Your task to perform on an android device: change keyboard looks Image 0: 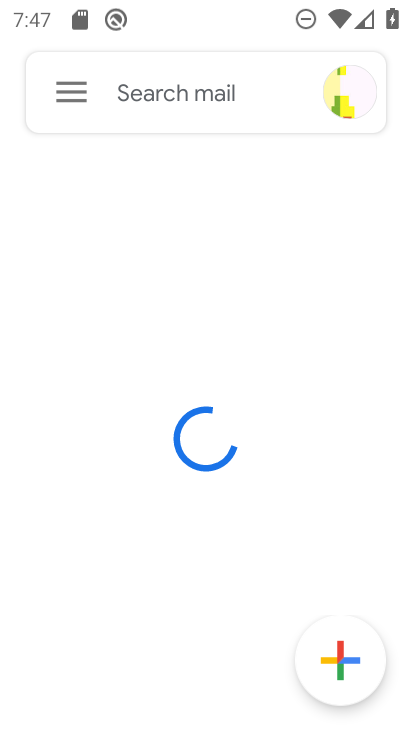
Step 0: press home button
Your task to perform on an android device: change keyboard looks Image 1: 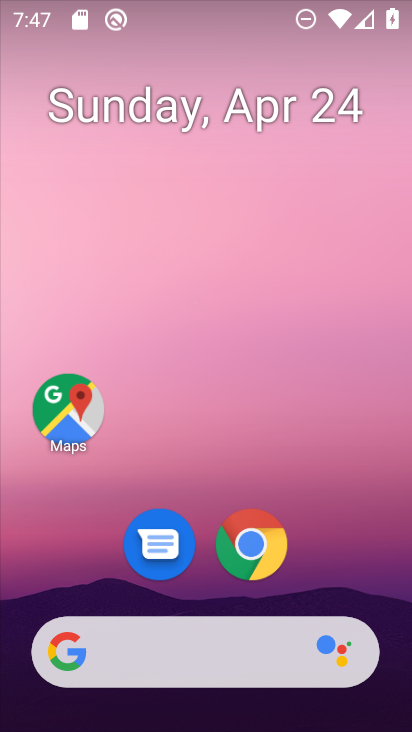
Step 1: drag from (156, 660) to (259, 168)
Your task to perform on an android device: change keyboard looks Image 2: 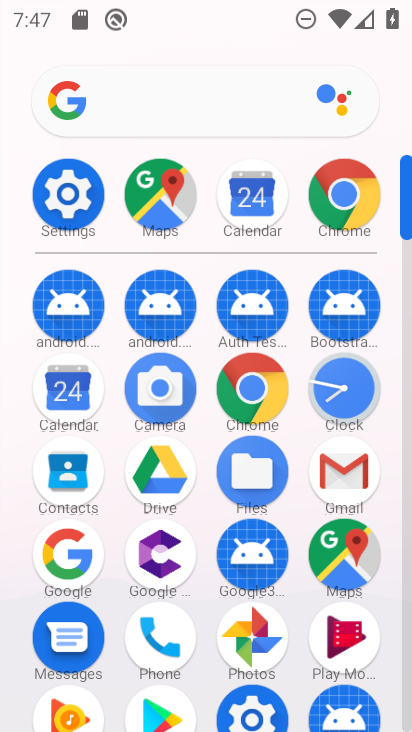
Step 2: click (72, 212)
Your task to perform on an android device: change keyboard looks Image 3: 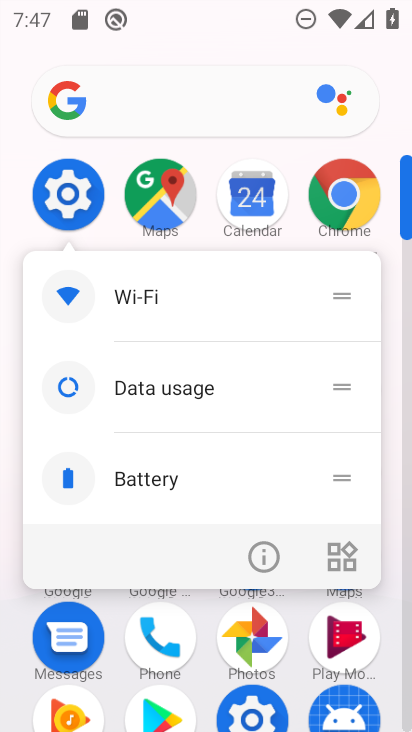
Step 3: click (77, 212)
Your task to perform on an android device: change keyboard looks Image 4: 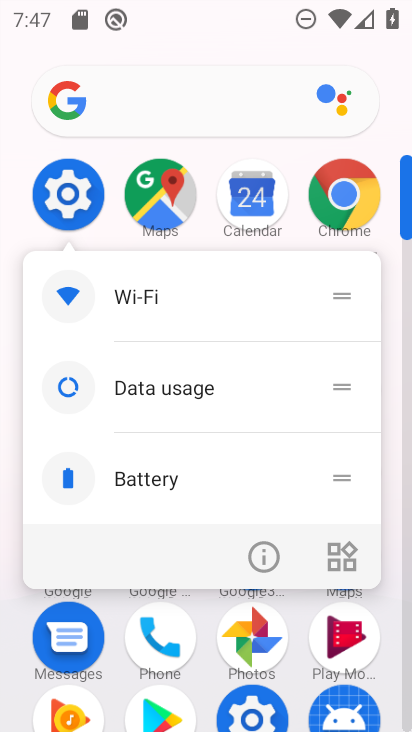
Step 4: click (75, 193)
Your task to perform on an android device: change keyboard looks Image 5: 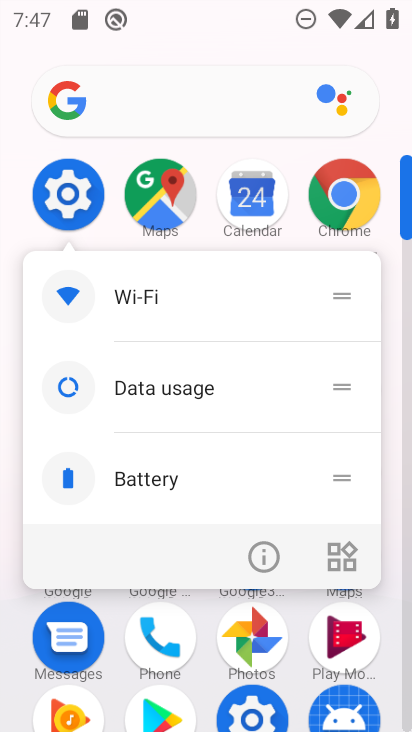
Step 5: click (71, 196)
Your task to perform on an android device: change keyboard looks Image 6: 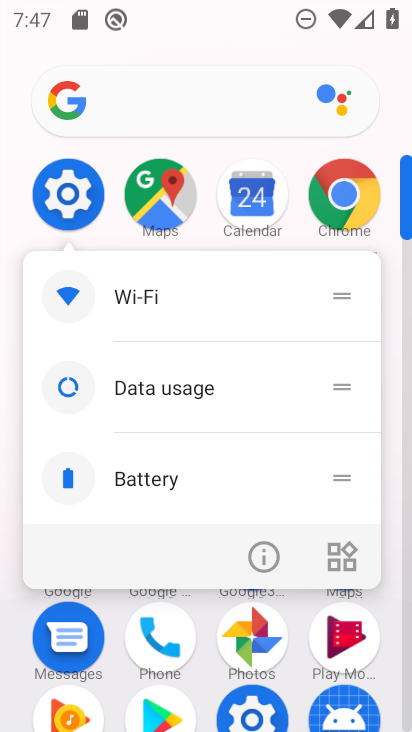
Step 6: click (70, 199)
Your task to perform on an android device: change keyboard looks Image 7: 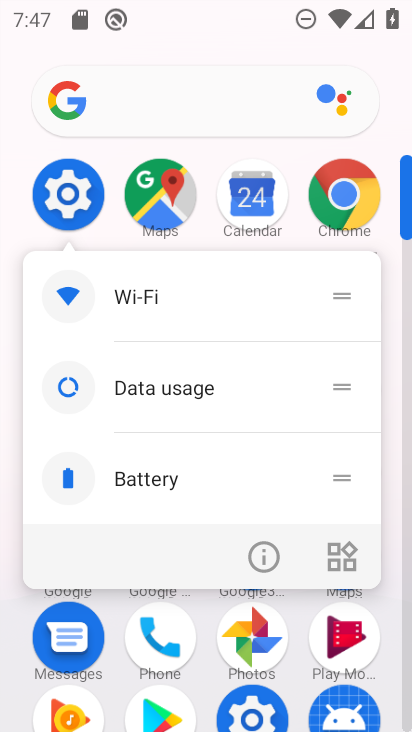
Step 7: click (62, 203)
Your task to perform on an android device: change keyboard looks Image 8: 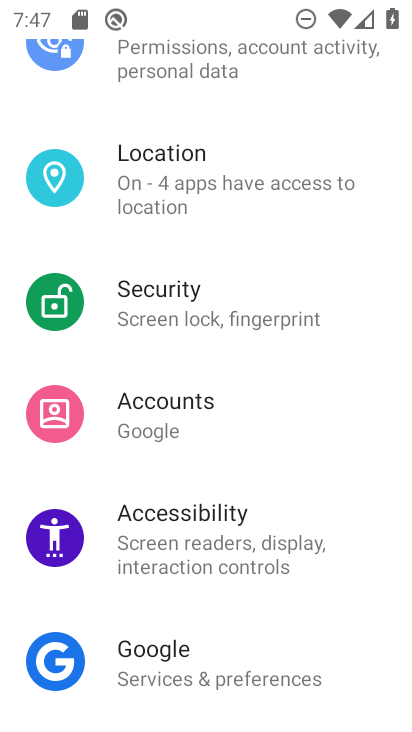
Step 8: drag from (177, 598) to (333, 183)
Your task to perform on an android device: change keyboard looks Image 9: 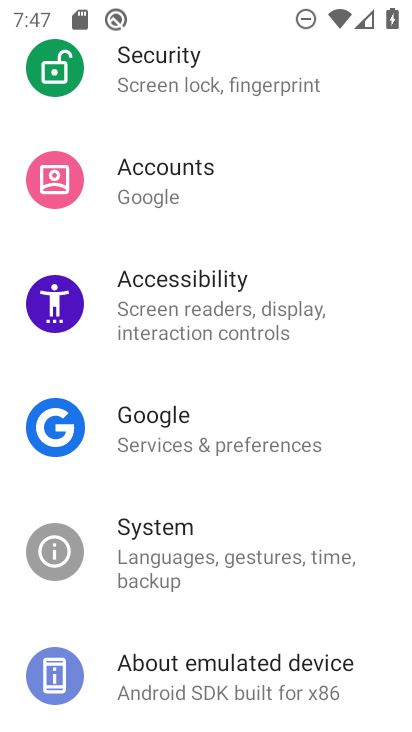
Step 9: click (169, 533)
Your task to perform on an android device: change keyboard looks Image 10: 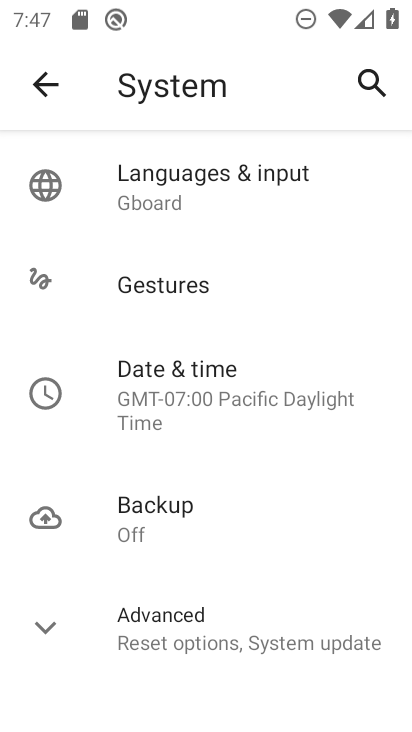
Step 10: click (207, 184)
Your task to perform on an android device: change keyboard looks Image 11: 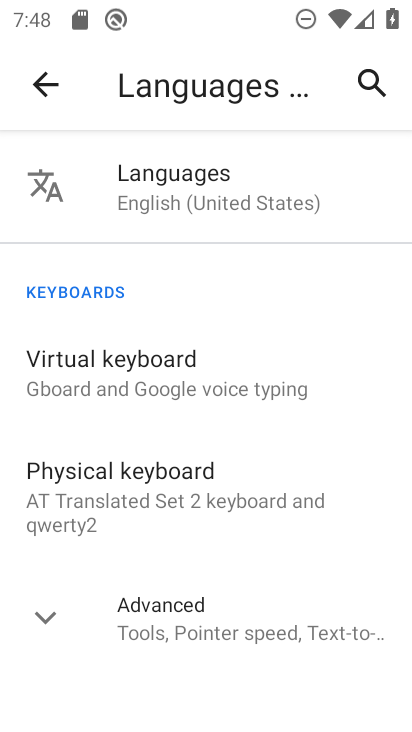
Step 11: click (130, 366)
Your task to perform on an android device: change keyboard looks Image 12: 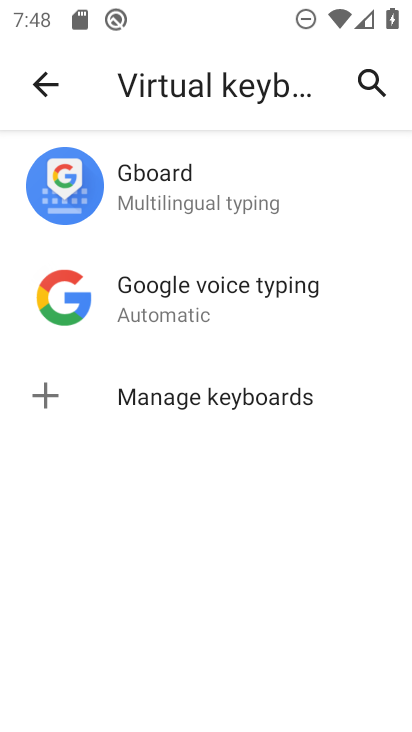
Step 12: click (175, 192)
Your task to perform on an android device: change keyboard looks Image 13: 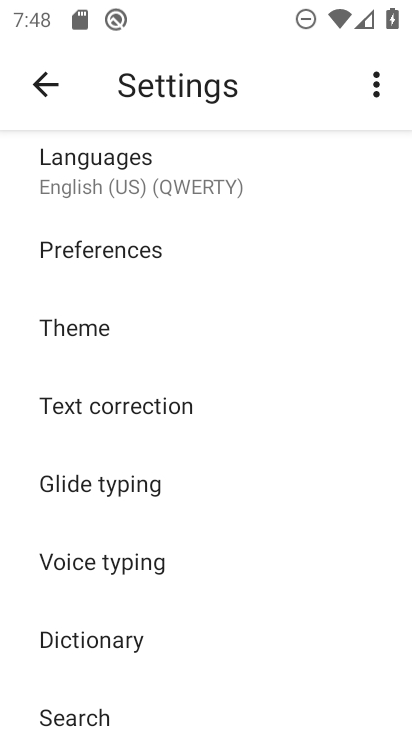
Step 13: click (88, 331)
Your task to perform on an android device: change keyboard looks Image 14: 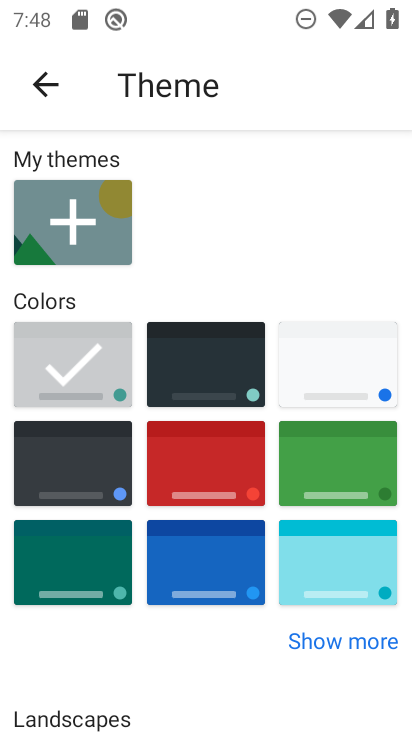
Step 14: click (206, 548)
Your task to perform on an android device: change keyboard looks Image 15: 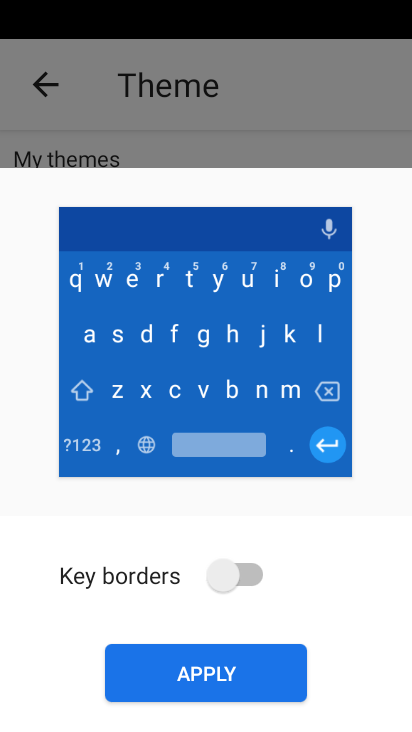
Step 15: click (214, 675)
Your task to perform on an android device: change keyboard looks Image 16: 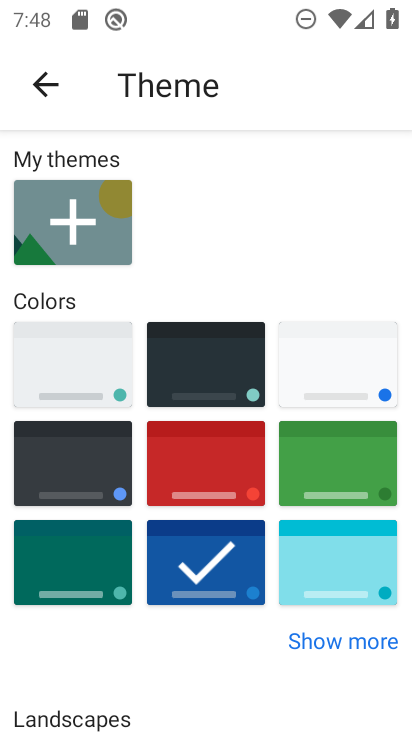
Step 16: task complete